Your task to perform on an android device: turn on bluetooth scan Image 0: 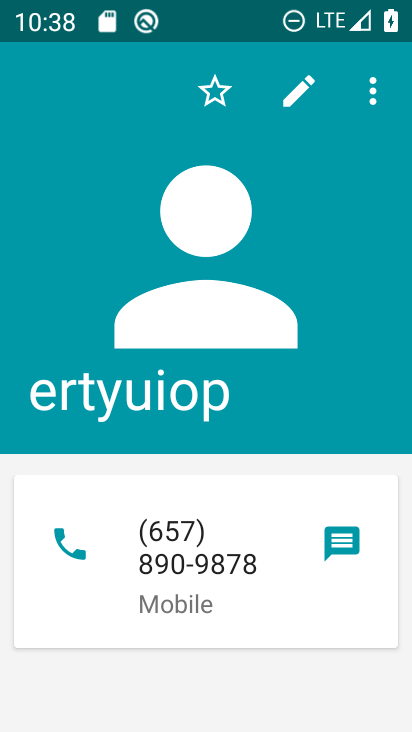
Step 0: press home button
Your task to perform on an android device: turn on bluetooth scan Image 1: 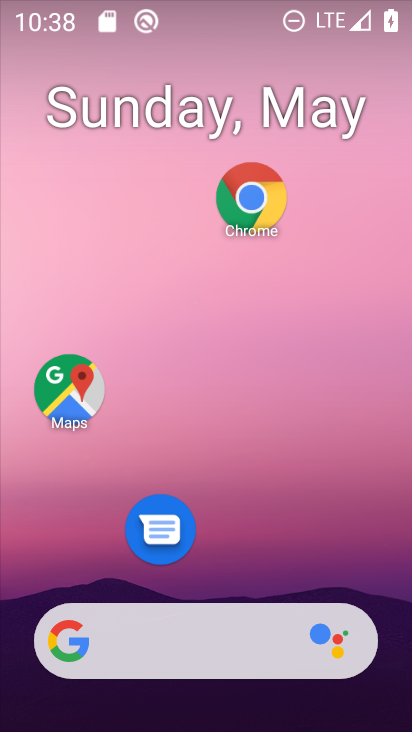
Step 1: drag from (267, 591) to (320, 107)
Your task to perform on an android device: turn on bluetooth scan Image 2: 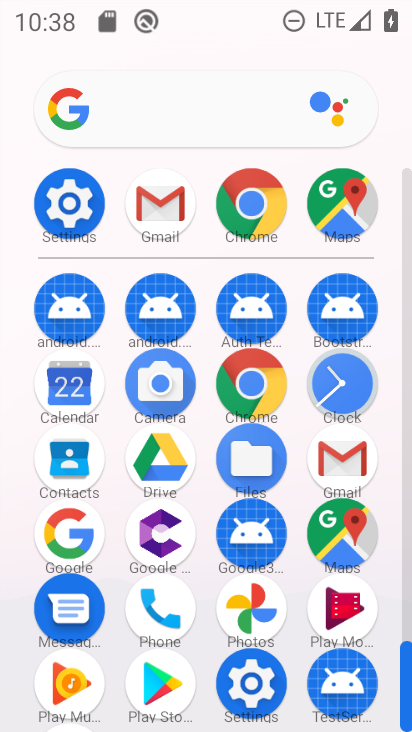
Step 2: click (251, 679)
Your task to perform on an android device: turn on bluetooth scan Image 3: 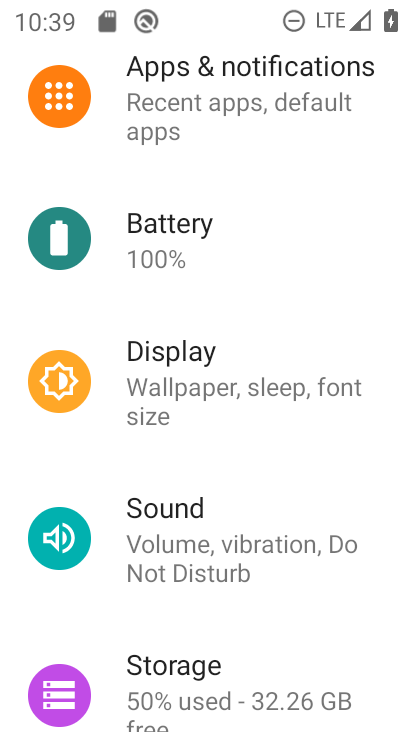
Step 3: drag from (201, 610) to (232, 440)
Your task to perform on an android device: turn on bluetooth scan Image 4: 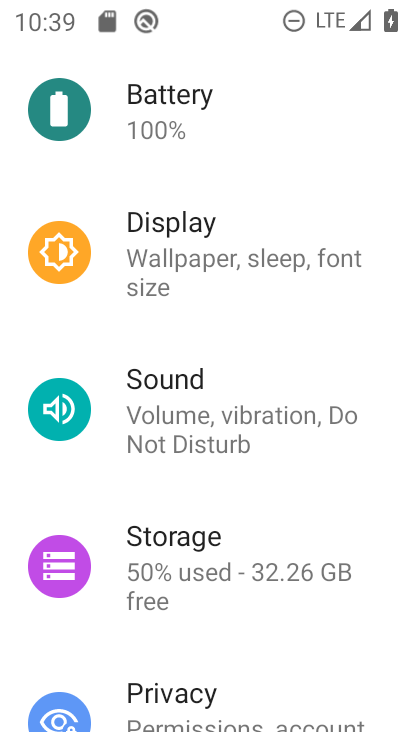
Step 4: drag from (211, 552) to (278, 415)
Your task to perform on an android device: turn on bluetooth scan Image 5: 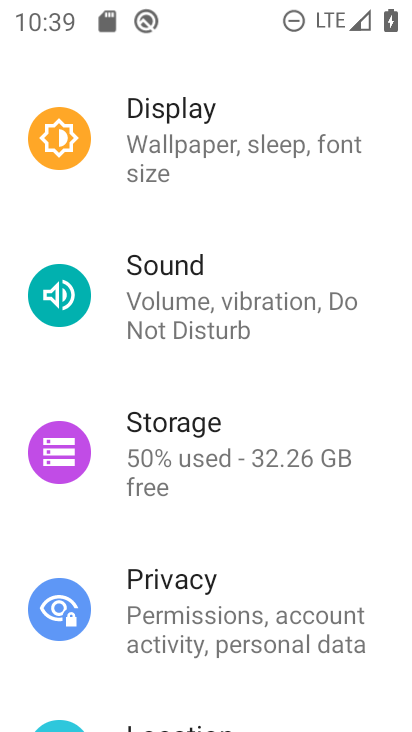
Step 5: drag from (213, 651) to (234, 435)
Your task to perform on an android device: turn on bluetooth scan Image 6: 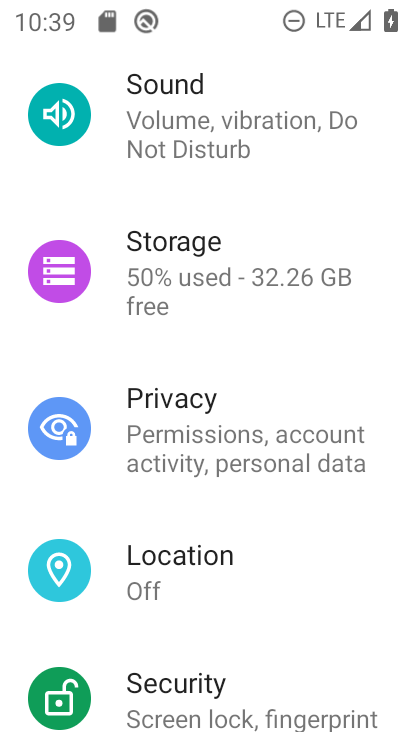
Step 6: click (189, 567)
Your task to perform on an android device: turn on bluetooth scan Image 7: 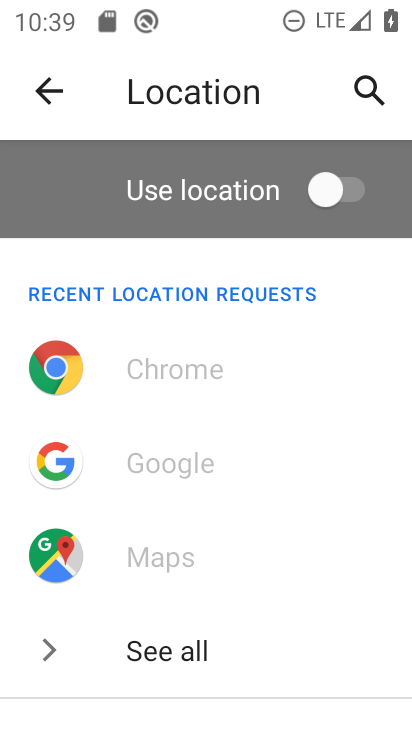
Step 7: drag from (230, 669) to (267, 349)
Your task to perform on an android device: turn on bluetooth scan Image 8: 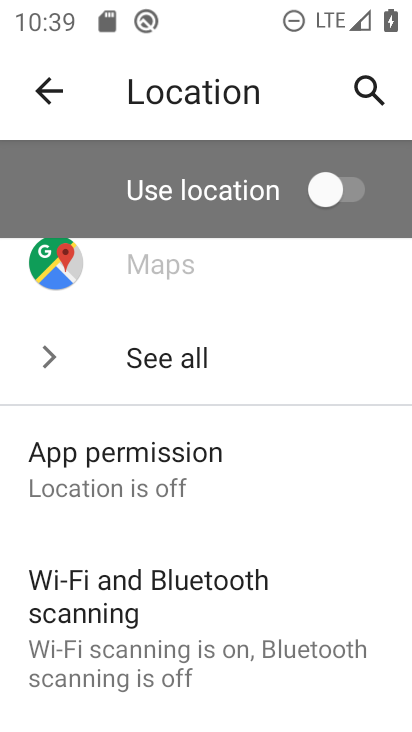
Step 8: click (197, 639)
Your task to perform on an android device: turn on bluetooth scan Image 9: 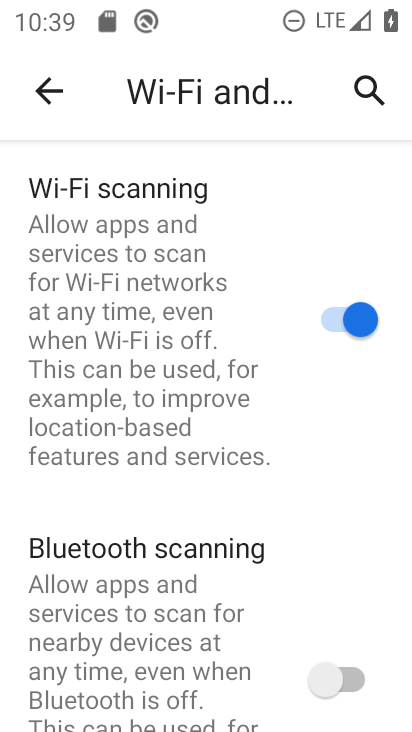
Step 9: click (317, 669)
Your task to perform on an android device: turn on bluetooth scan Image 10: 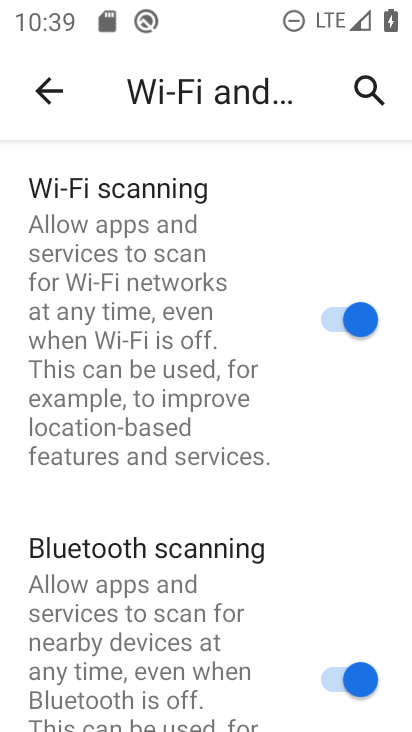
Step 10: task complete